Your task to perform on an android device: show emergency info Image 0: 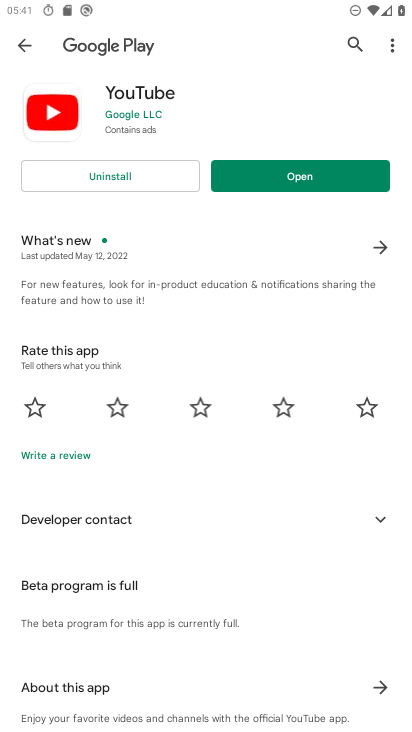
Step 0: press home button
Your task to perform on an android device: show emergency info Image 1: 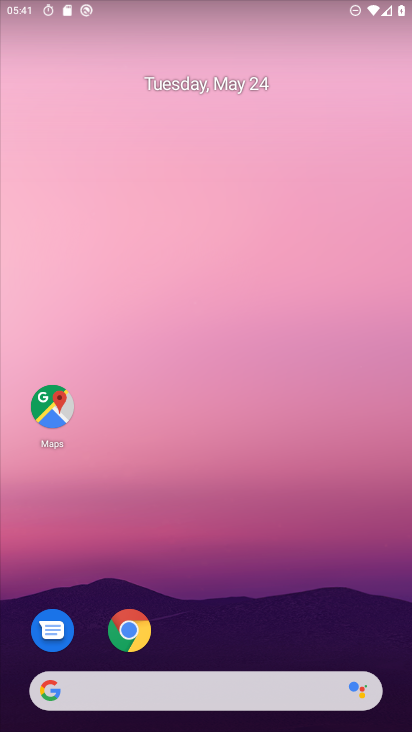
Step 1: drag from (204, 644) to (156, 3)
Your task to perform on an android device: show emergency info Image 2: 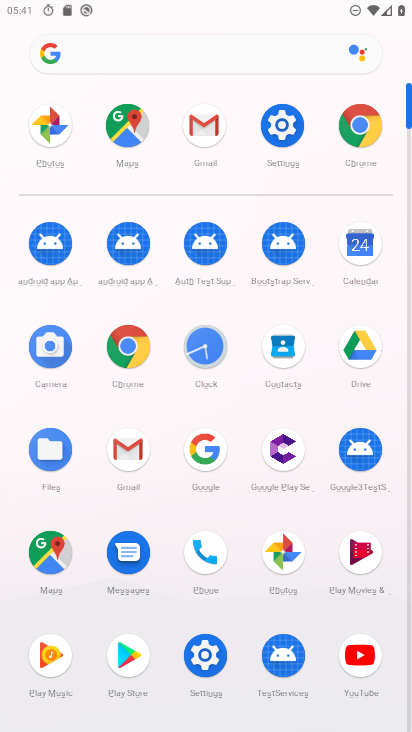
Step 2: click (272, 155)
Your task to perform on an android device: show emergency info Image 3: 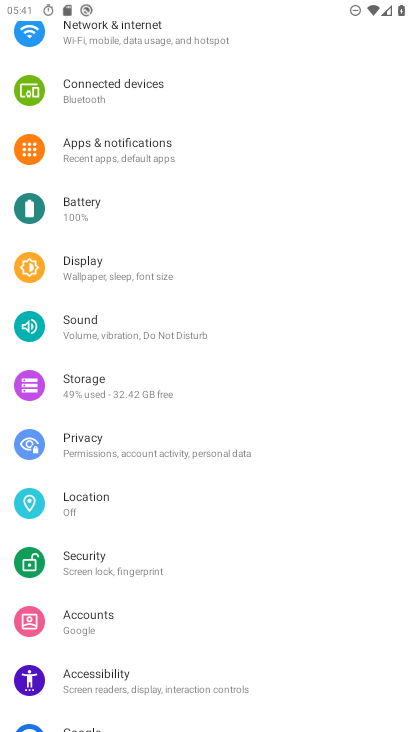
Step 3: drag from (51, 696) to (232, 175)
Your task to perform on an android device: show emergency info Image 4: 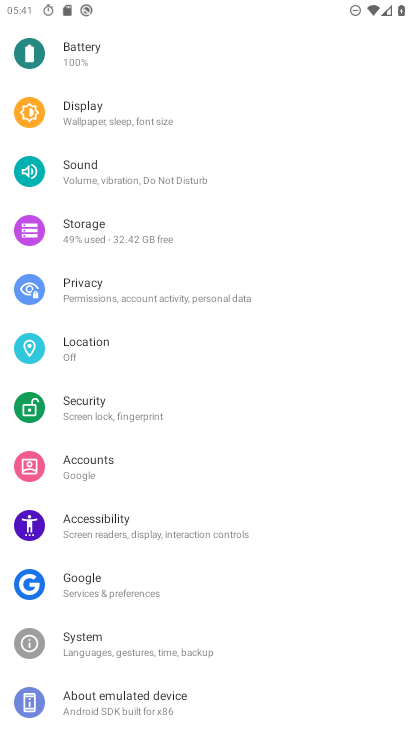
Step 4: click (114, 701)
Your task to perform on an android device: show emergency info Image 5: 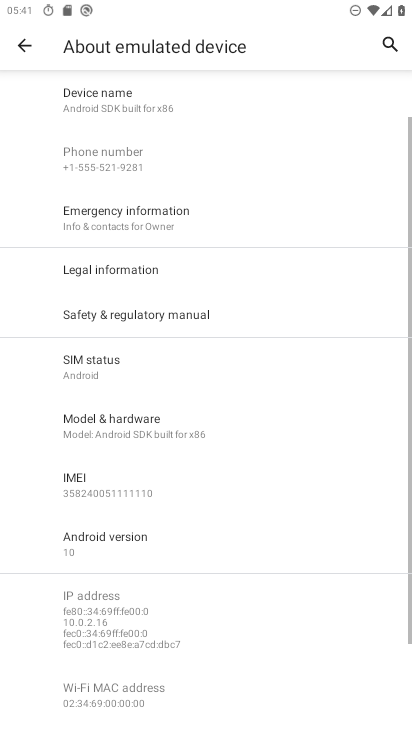
Step 5: click (218, 207)
Your task to perform on an android device: show emergency info Image 6: 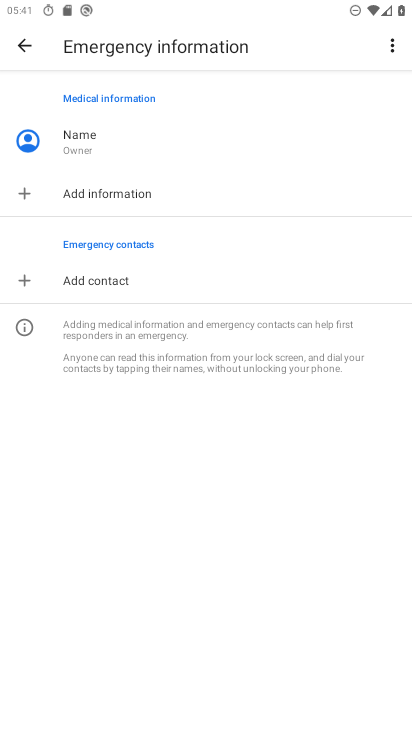
Step 6: task complete